Your task to perform on an android device: View the shopping cart on bestbuy. Search for "alienware aurora" on bestbuy, select the first entry, and add it to the cart. Image 0: 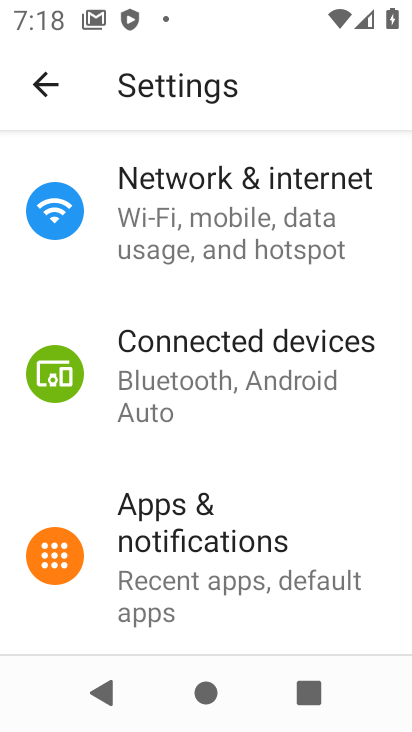
Step 0: press home button
Your task to perform on an android device: View the shopping cart on bestbuy. Search for "alienware aurora" on bestbuy, select the first entry, and add it to the cart. Image 1: 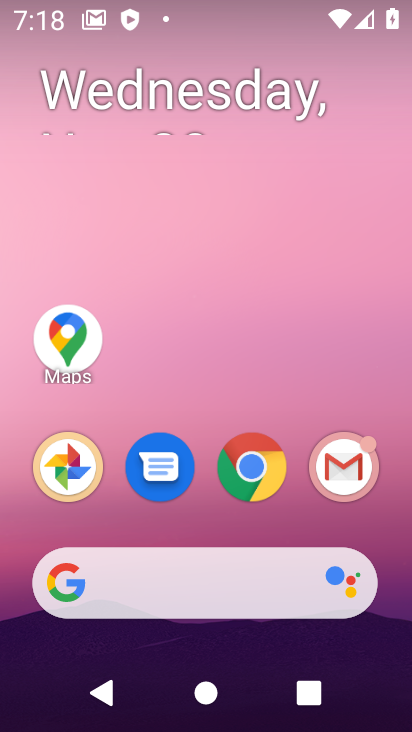
Step 1: click (240, 460)
Your task to perform on an android device: View the shopping cart on bestbuy. Search for "alienware aurora" on bestbuy, select the first entry, and add it to the cart. Image 2: 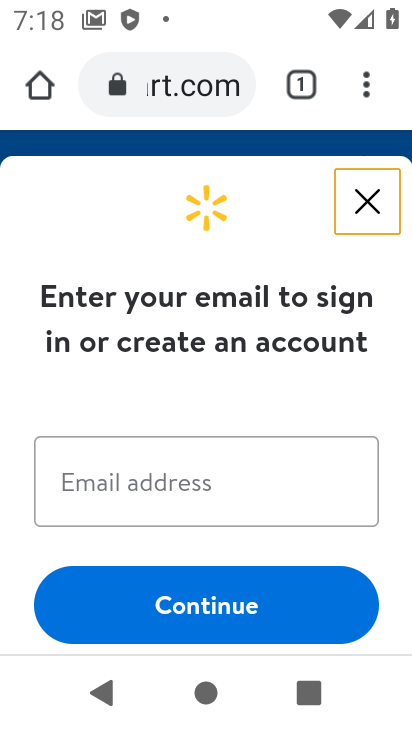
Step 2: click (185, 99)
Your task to perform on an android device: View the shopping cart on bestbuy. Search for "alienware aurora" on bestbuy, select the first entry, and add it to the cart. Image 3: 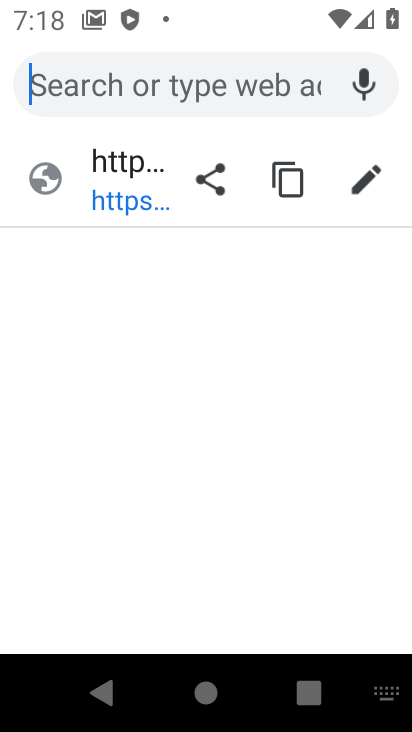
Step 3: type "bestbuy"
Your task to perform on an android device: View the shopping cart on bestbuy. Search for "alienware aurora" on bestbuy, select the first entry, and add it to the cart. Image 4: 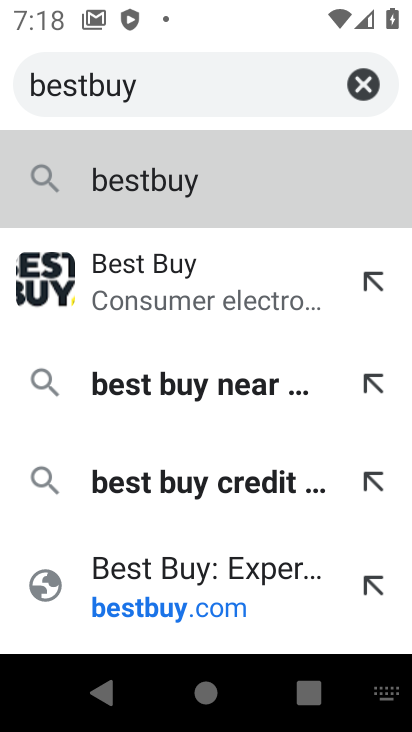
Step 4: click (194, 176)
Your task to perform on an android device: View the shopping cart on bestbuy. Search for "alienware aurora" on bestbuy, select the first entry, and add it to the cart. Image 5: 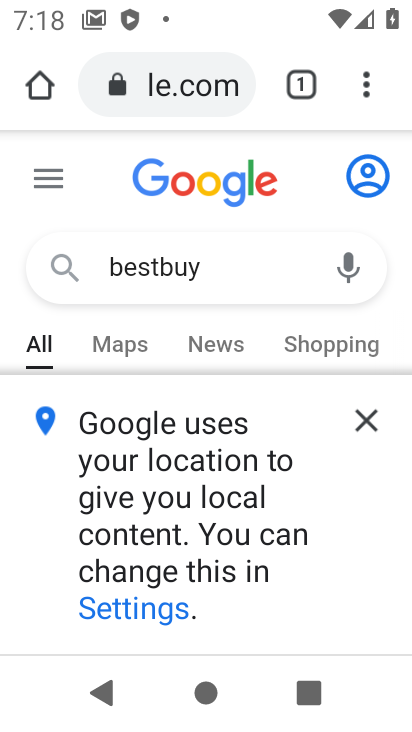
Step 5: click (358, 429)
Your task to perform on an android device: View the shopping cart on bestbuy. Search for "alienware aurora" on bestbuy, select the first entry, and add it to the cart. Image 6: 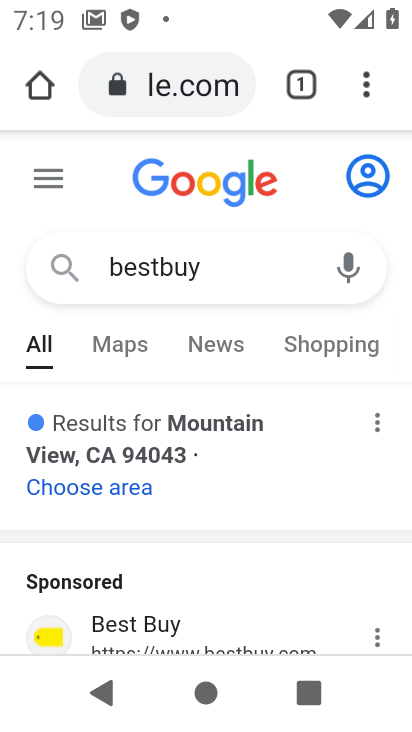
Step 6: drag from (169, 548) to (187, 337)
Your task to perform on an android device: View the shopping cart on bestbuy. Search for "alienware aurora" on bestbuy, select the first entry, and add it to the cart. Image 7: 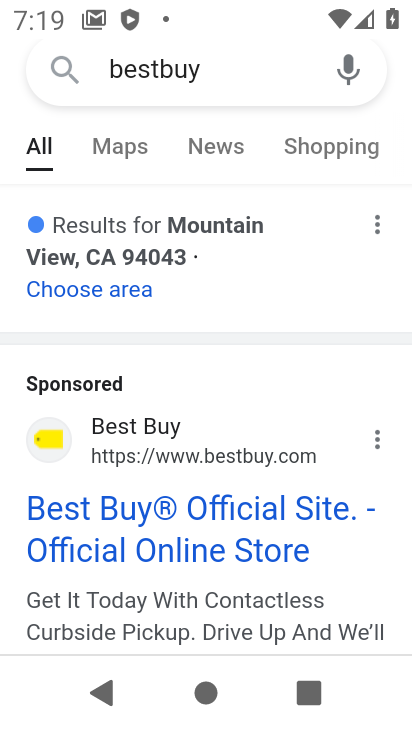
Step 7: click (114, 530)
Your task to perform on an android device: View the shopping cart on bestbuy. Search for "alienware aurora" on bestbuy, select the first entry, and add it to the cart. Image 8: 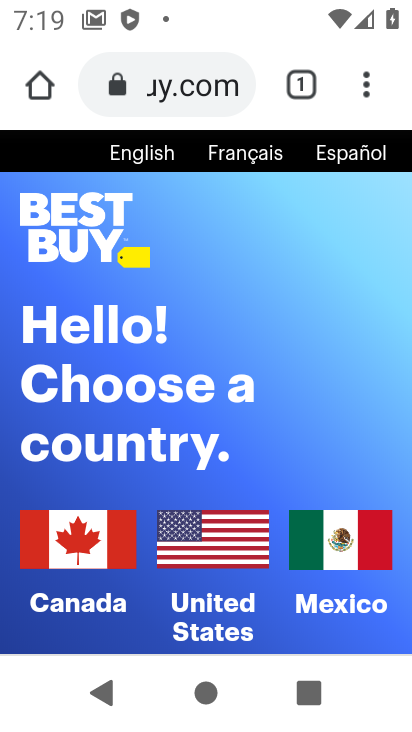
Step 8: click (188, 553)
Your task to perform on an android device: View the shopping cart on bestbuy. Search for "alienware aurora" on bestbuy, select the first entry, and add it to the cart. Image 9: 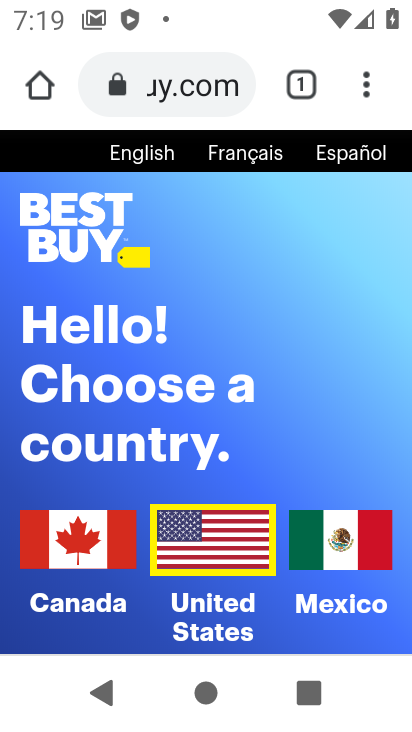
Step 9: drag from (207, 579) to (217, 409)
Your task to perform on an android device: View the shopping cart on bestbuy. Search for "alienware aurora" on bestbuy, select the first entry, and add it to the cart. Image 10: 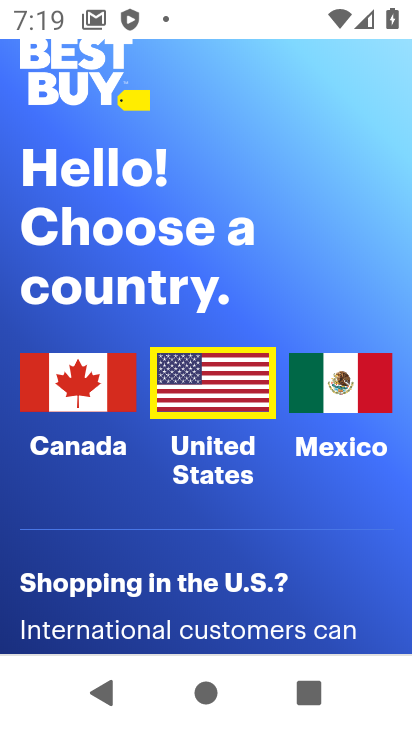
Step 10: click (207, 467)
Your task to perform on an android device: View the shopping cart on bestbuy. Search for "alienware aurora" on bestbuy, select the first entry, and add it to the cart. Image 11: 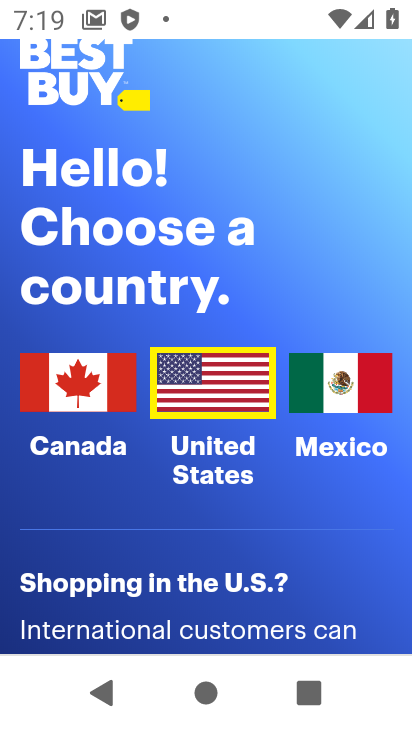
Step 11: click (225, 450)
Your task to perform on an android device: View the shopping cart on bestbuy. Search for "alienware aurora" on bestbuy, select the first entry, and add it to the cart. Image 12: 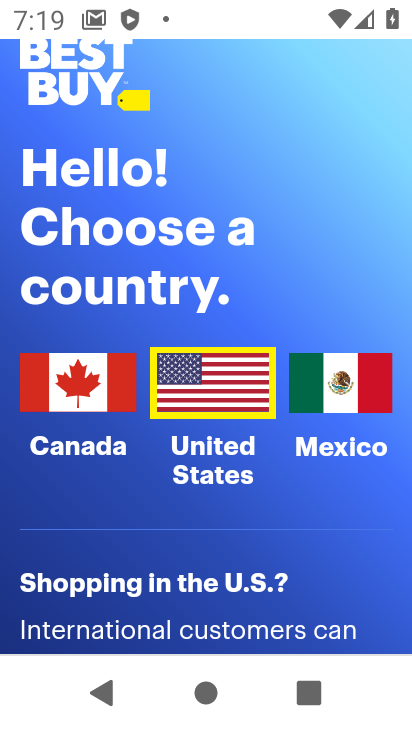
Step 12: click (208, 466)
Your task to perform on an android device: View the shopping cart on bestbuy. Search for "alienware aurora" on bestbuy, select the first entry, and add it to the cart. Image 13: 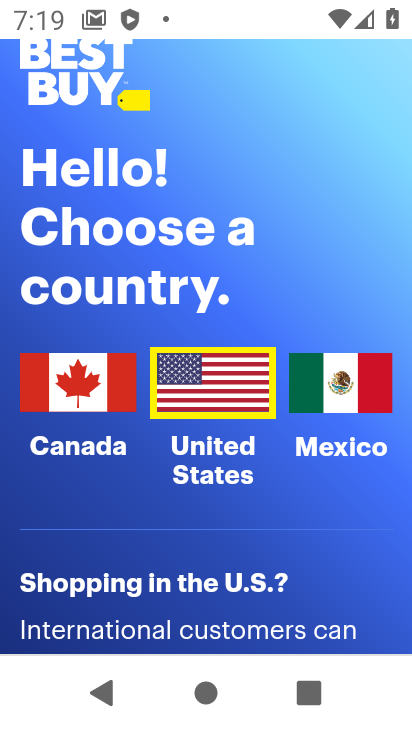
Step 13: click (208, 466)
Your task to perform on an android device: View the shopping cart on bestbuy. Search for "alienware aurora" on bestbuy, select the first entry, and add it to the cart. Image 14: 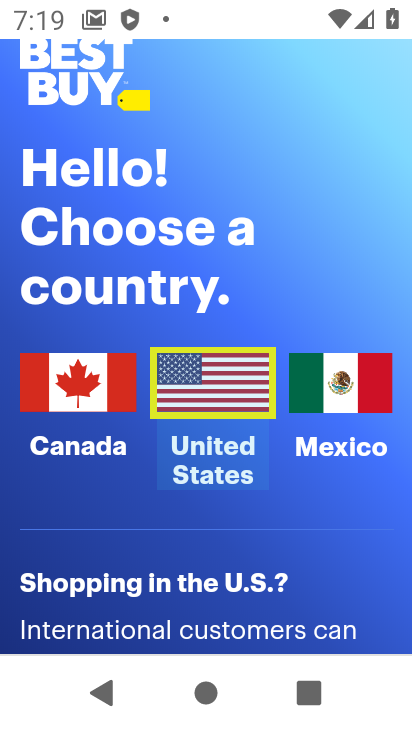
Step 14: click (208, 466)
Your task to perform on an android device: View the shopping cart on bestbuy. Search for "alienware aurora" on bestbuy, select the first entry, and add it to the cart. Image 15: 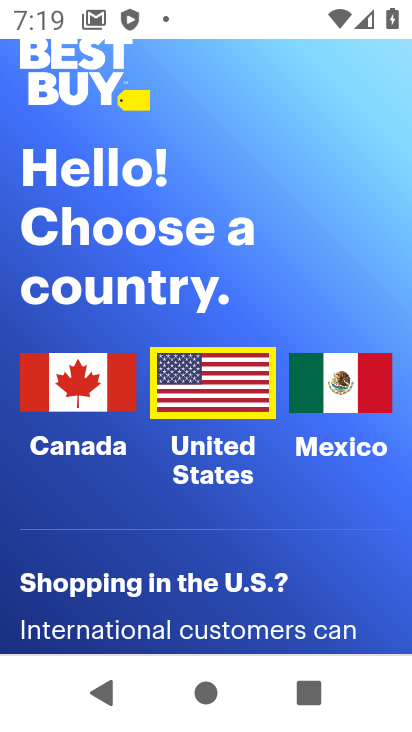
Step 15: click (66, 450)
Your task to perform on an android device: View the shopping cart on bestbuy. Search for "alienware aurora" on bestbuy, select the first entry, and add it to the cart. Image 16: 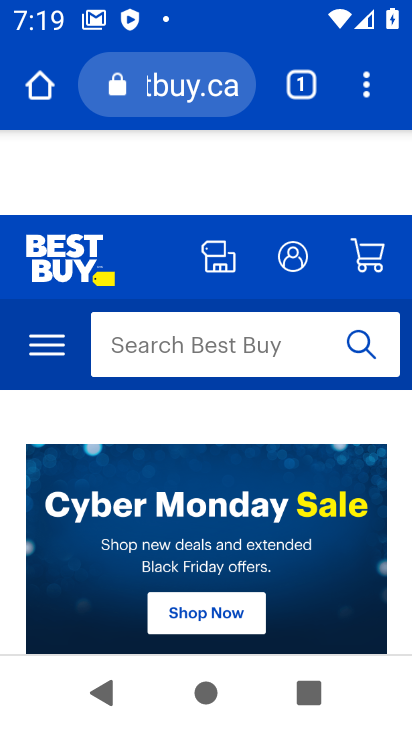
Step 16: click (216, 341)
Your task to perform on an android device: View the shopping cart on bestbuy. Search for "alienware aurora" on bestbuy, select the first entry, and add it to the cart. Image 17: 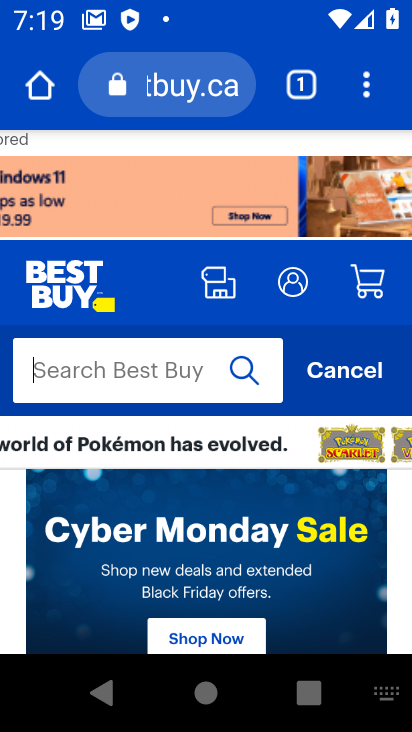
Step 17: click (365, 288)
Your task to perform on an android device: View the shopping cart on bestbuy. Search for "alienware aurora" on bestbuy, select the first entry, and add it to the cart. Image 18: 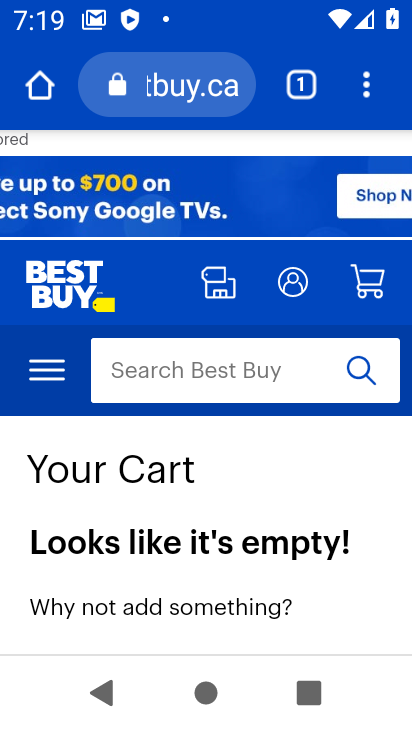
Step 18: drag from (295, 547) to (285, 402)
Your task to perform on an android device: View the shopping cart on bestbuy. Search for "alienware aurora" on bestbuy, select the first entry, and add it to the cart. Image 19: 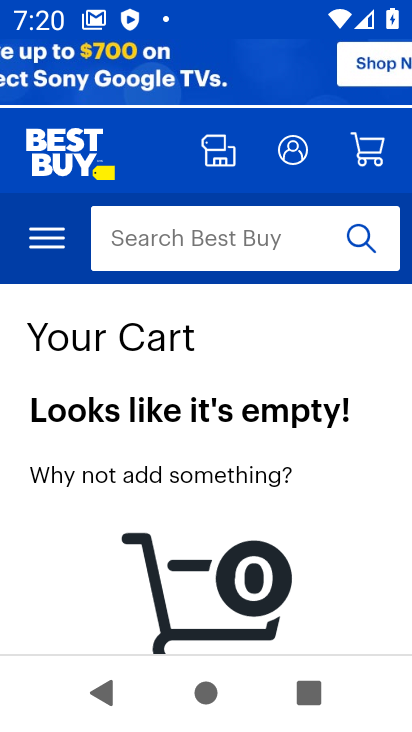
Step 19: click (193, 363)
Your task to perform on an android device: View the shopping cart on bestbuy. Search for "alienware aurora" on bestbuy, select the first entry, and add it to the cart. Image 20: 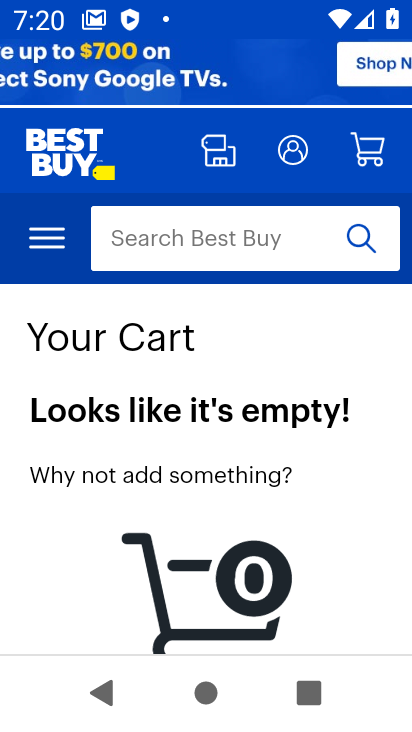
Step 20: click (182, 244)
Your task to perform on an android device: View the shopping cart on bestbuy. Search for "alienware aurora" on bestbuy, select the first entry, and add it to the cart. Image 21: 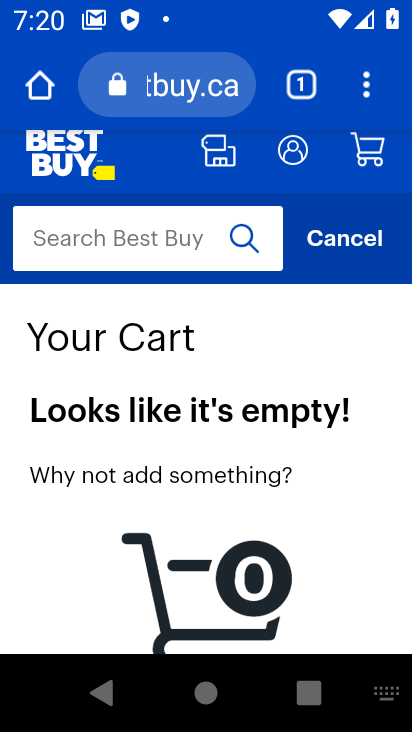
Step 21: type "alienware aurora"
Your task to perform on an android device: View the shopping cart on bestbuy. Search for "alienware aurora" on bestbuy, select the first entry, and add it to the cart. Image 22: 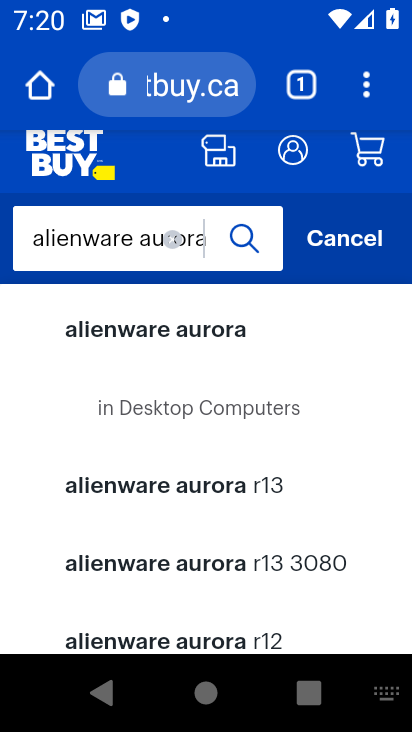
Step 22: click (237, 231)
Your task to perform on an android device: View the shopping cart on bestbuy. Search for "alienware aurora" on bestbuy, select the first entry, and add it to the cart. Image 23: 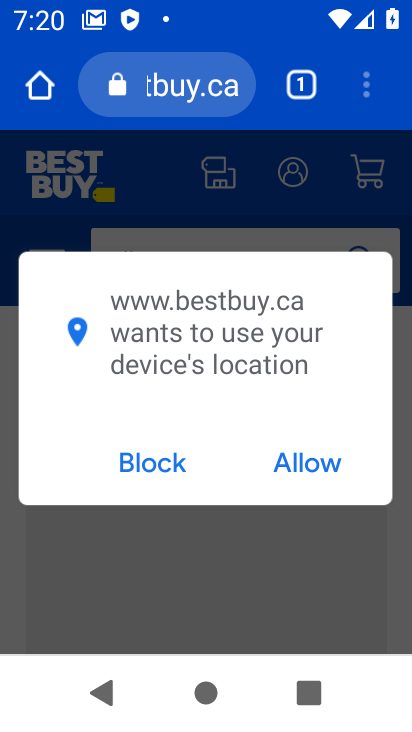
Step 23: click (288, 454)
Your task to perform on an android device: View the shopping cart on bestbuy. Search for "alienware aurora" on bestbuy, select the first entry, and add it to the cart. Image 24: 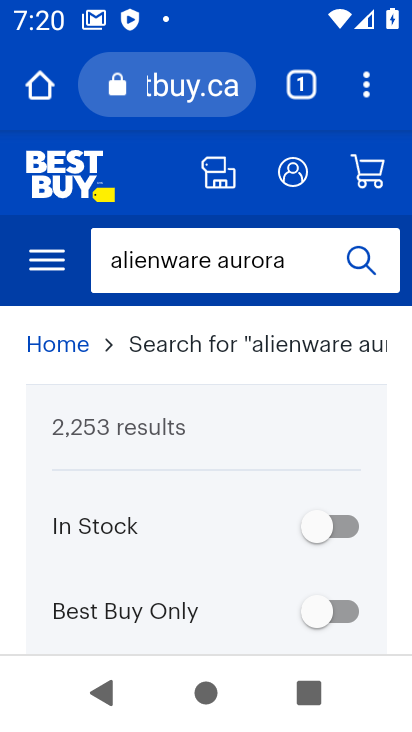
Step 24: drag from (241, 532) to (229, 308)
Your task to perform on an android device: View the shopping cart on bestbuy. Search for "alienware aurora" on bestbuy, select the first entry, and add it to the cart. Image 25: 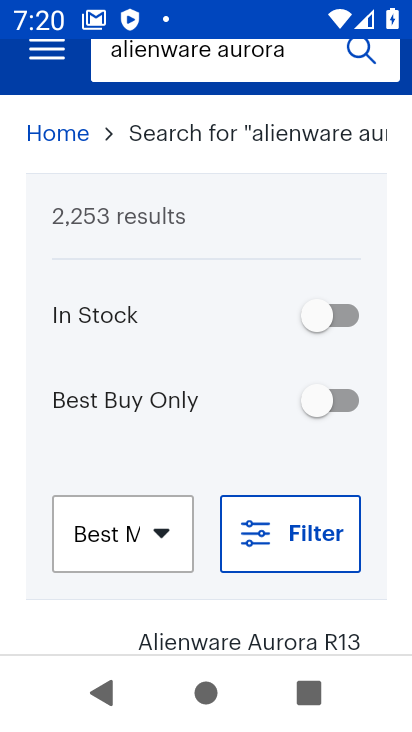
Step 25: drag from (195, 474) to (198, 276)
Your task to perform on an android device: View the shopping cart on bestbuy. Search for "alienware aurora" on bestbuy, select the first entry, and add it to the cart. Image 26: 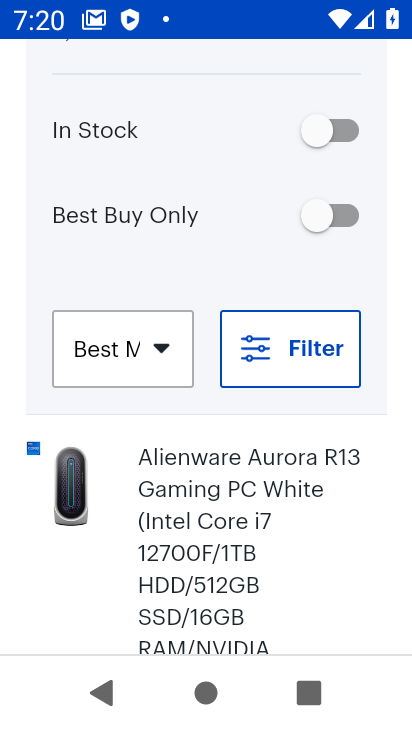
Step 26: drag from (194, 491) to (214, 276)
Your task to perform on an android device: View the shopping cart on bestbuy. Search for "alienware aurora" on bestbuy, select the first entry, and add it to the cart. Image 27: 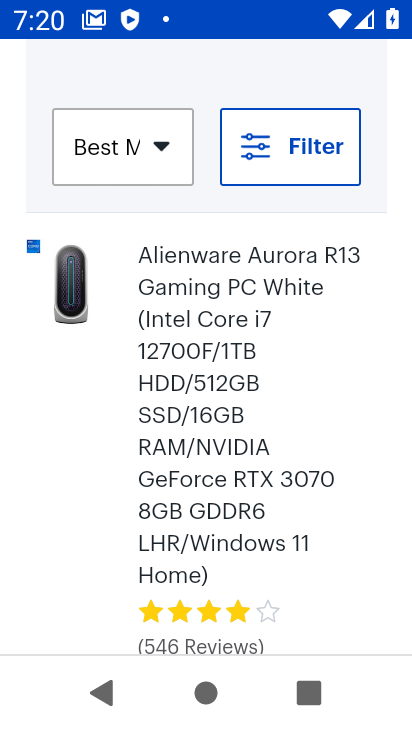
Step 27: click (198, 328)
Your task to perform on an android device: View the shopping cart on bestbuy. Search for "alienware aurora" on bestbuy, select the first entry, and add it to the cart. Image 28: 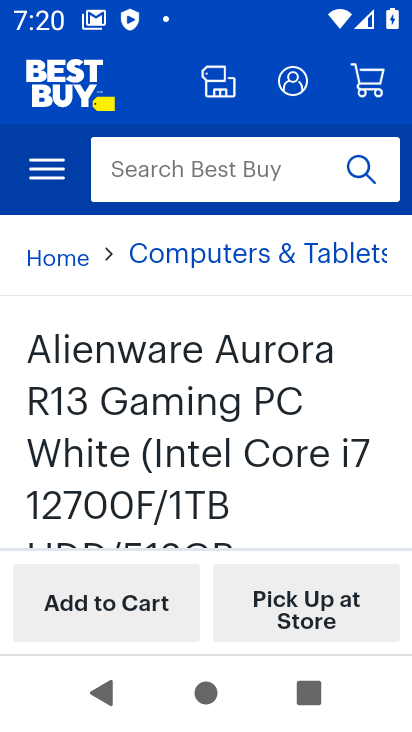
Step 28: drag from (213, 504) to (215, 370)
Your task to perform on an android device: View the shopping cart on bestbuy. Search for "alienware aurora" on bestbuy, select the first entry, and add it to the cart. Image 29: 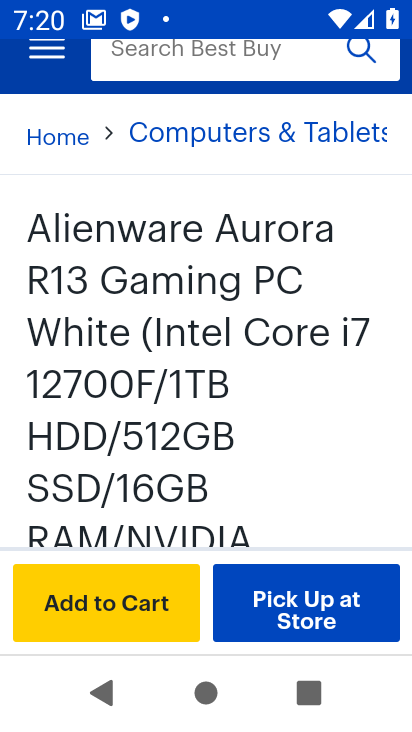
Step 29: click (111, 595)
Your task to perform on an android device: View the shopping cart on bestbuy. Search for "alienware aurora" on bestbuy, select the first entry, and add it to the cart. Image 30: 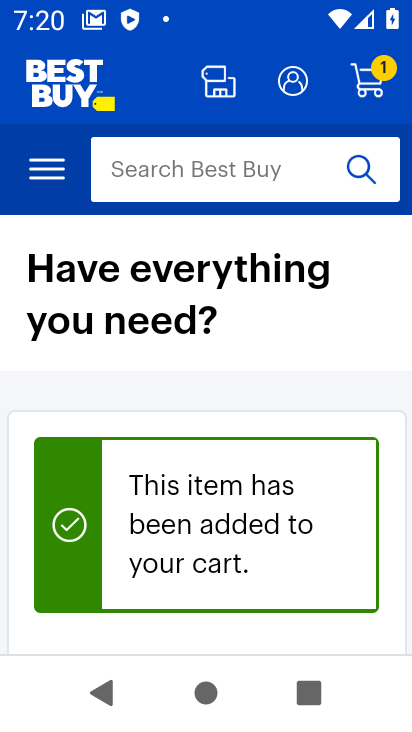
Step 30: task complete